Your task to perform on an android device: Go to notification settings Image 0: 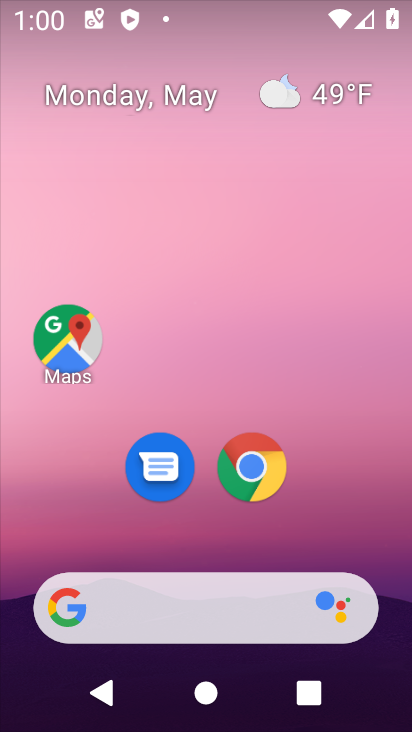
Step 0: drag from (374, 522) to (351, 90)
Your task to perform on an android device: Go to notification settings Image 1: 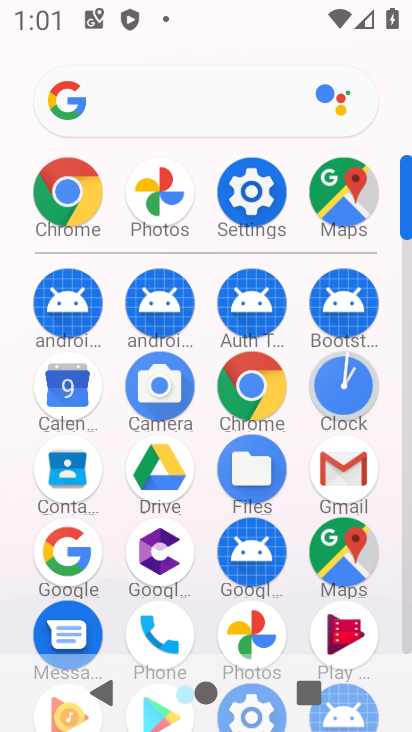
Step 1: click (260, 212)
Your task to perform on an android device: Go to notification settings Image 2: 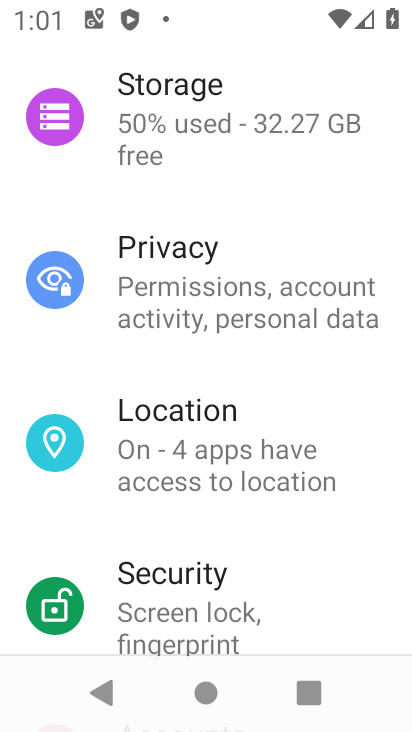
Step 2: drag from (259, 214) to (285, 532)
Your task to perform on an android device: Go to notification settings Image 3: 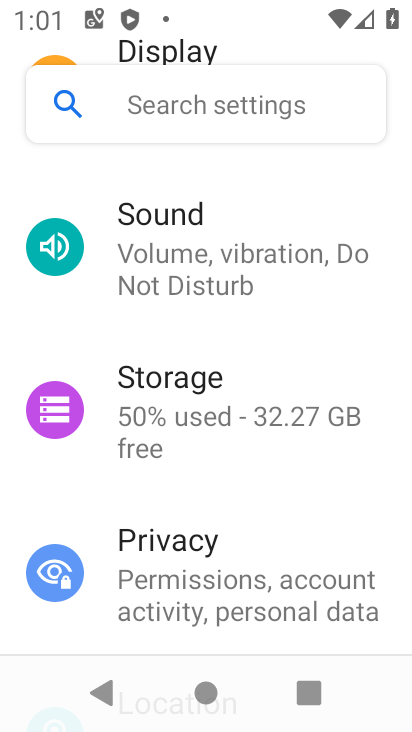
Step 3: drag from (274, 231) to (320, 519)
Your task to perform on an android device: Go to notification settings Image 4: 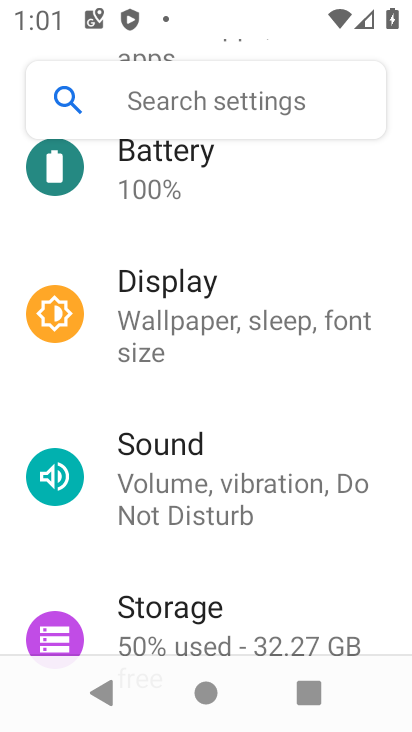
Step 4: drag from (277, 239) to (310, 594)
Your task to perform on an android device: Go to notification settings Image 5: 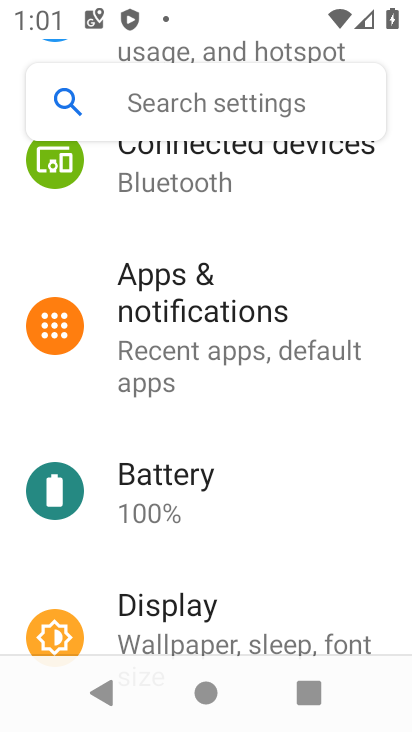
Step 5: click (299, 337)
Your task to perform on an android device: Go to notification settings Image 6: 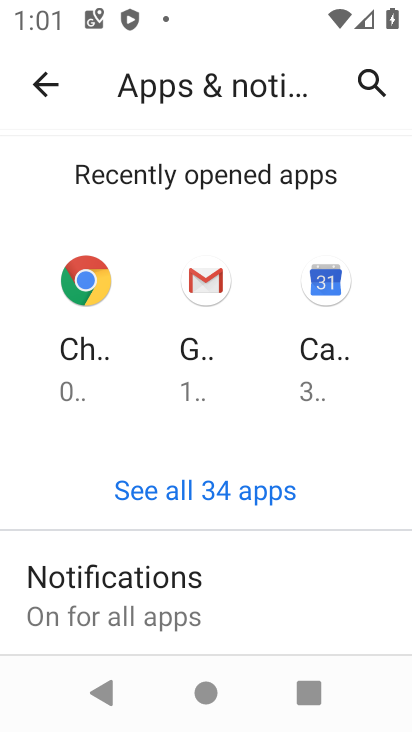
Step 6: click (166, 580)
Your task to perform on an android device: Go to notification settings Image 7: 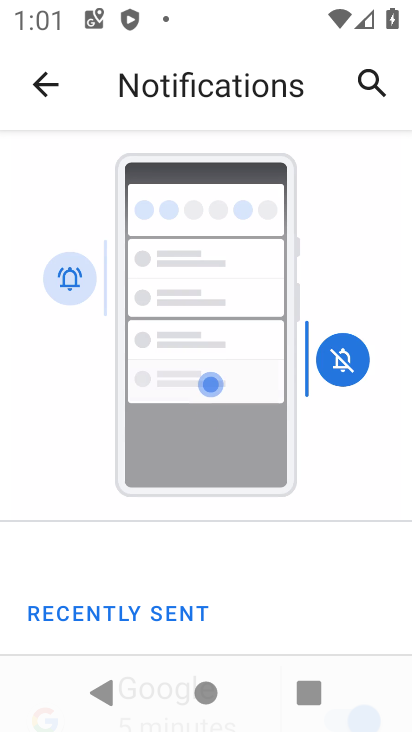
Step 7: task complete